Your task to perform on an android device: Find coffee shops on Maps Image 0: 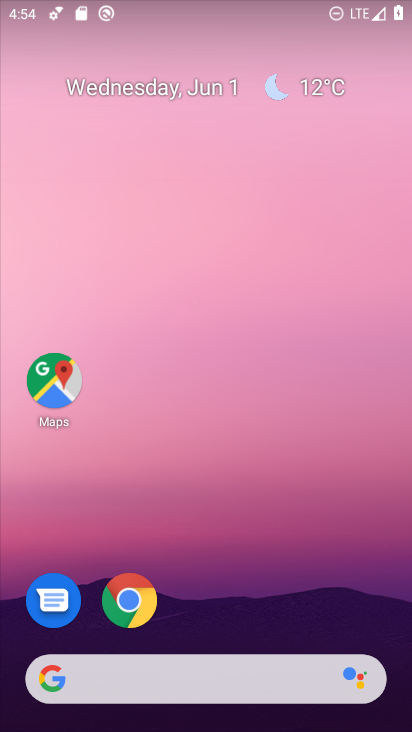
Step 0: click (54, 378)
Your task to perform on an android device: Find coffee shops on Maps Image 1: 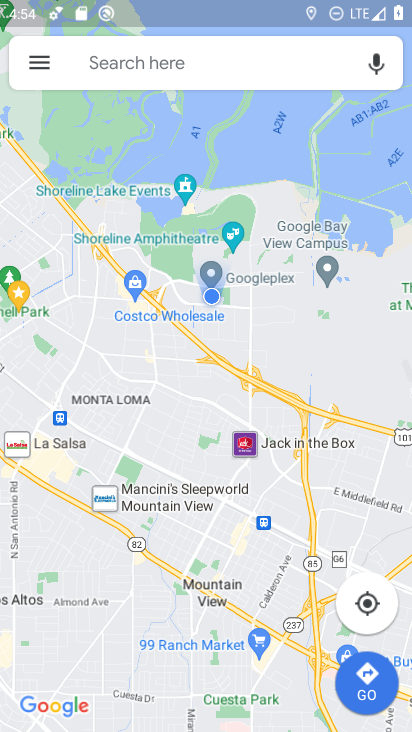
Step 1: click (137, 62)
Your task to perform on an android device: Find coffee shops on Maps Image 2: 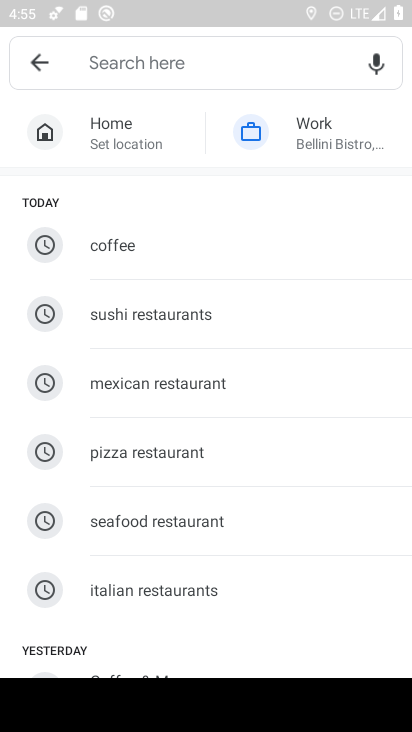
Step 2: type "coffee shop"
Your task to perform on an android device: Find coffee shops on Maps Image 3: 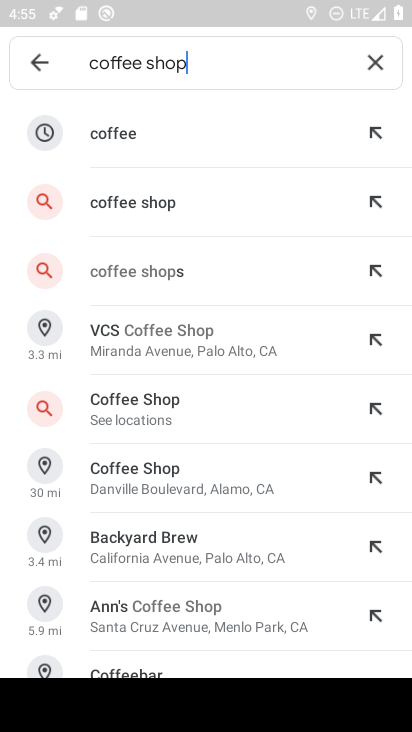
Step 3: click (159, 200)
Your task to perform on an android device: Find coffee shops on Maps Image 4: 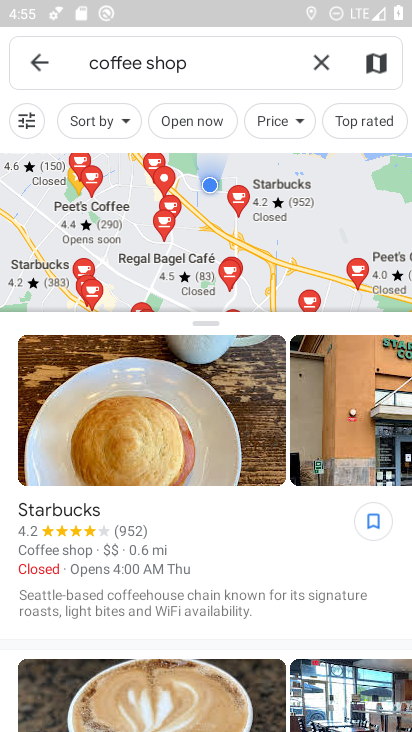
Step 4: task complete